Your task to perform on an android device: move a message to another label in the gmail app Image 0: 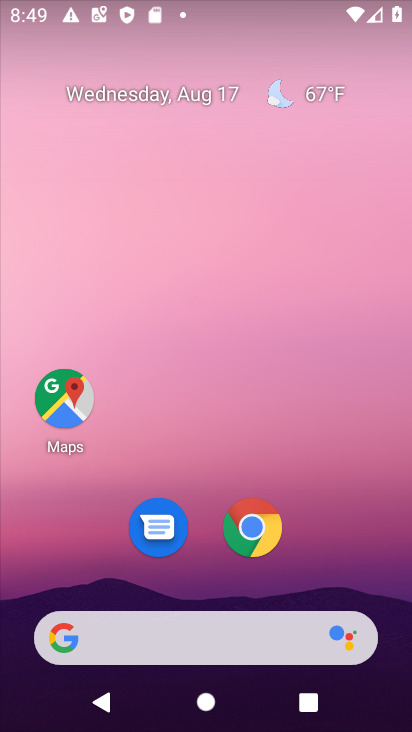
Step 0: drag from (196, 579) to (200, 146)
Your task to perform on an android device: move a message to another label in the gmail app Image 1: 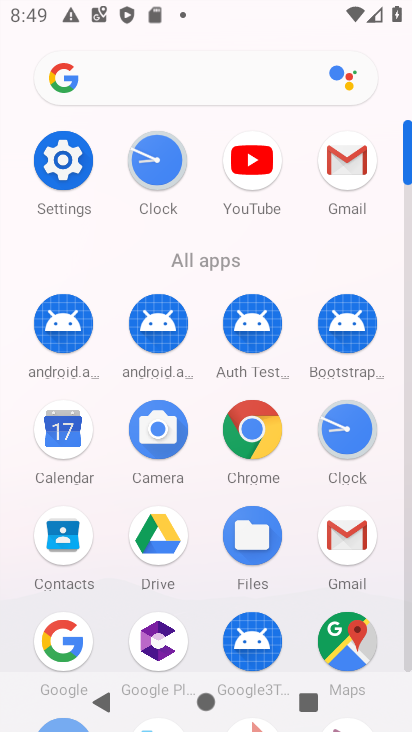
Step 1: click (365, 168)
Your task to perform on an android device: move a message to another label in the gmail app Image 2: 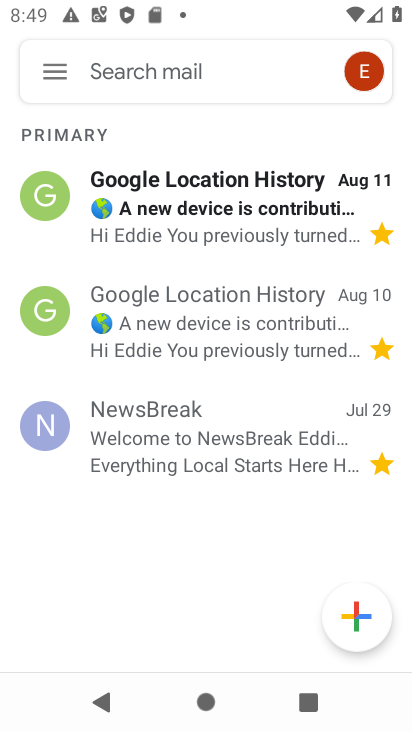
Step 2: click (31, 198)
Your task to perform on an android device: move a message to another label in the gmail app Image 3: 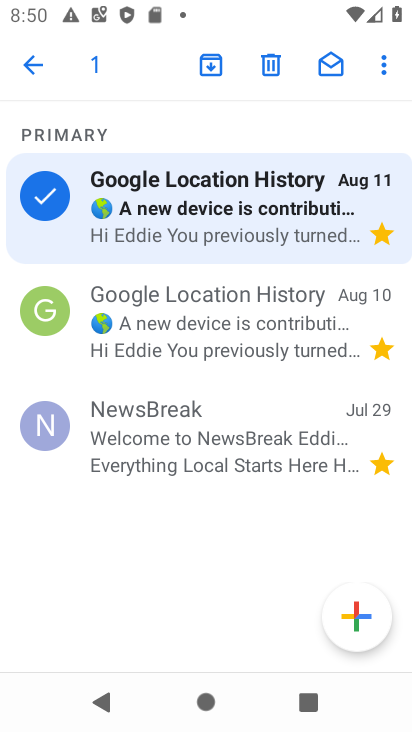
Step 3: click (389, 58)
Your task to perform on an android device: move a message to another label in the gmail app Image 4: 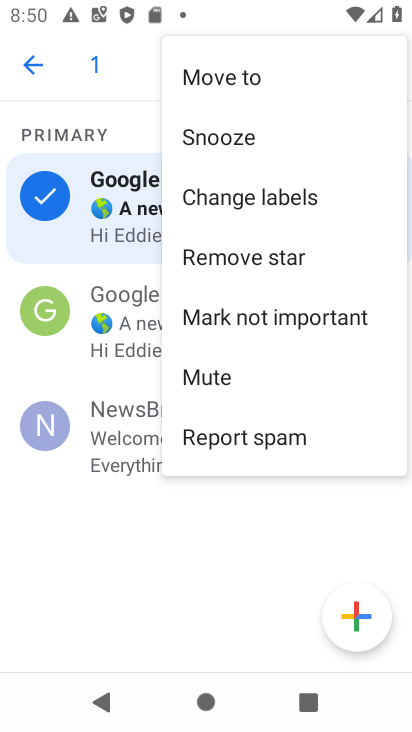
Step 4: click (329, 201)
Your task to perform on an android device: move a message to another label in the gmail app Image 5: 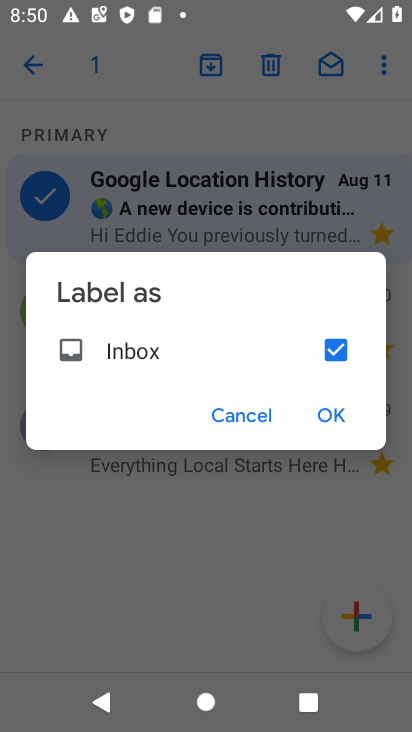
Step 5: click (341, 412)
Your task to perform on an android device: move a message to another label in the gmail app Image 6: 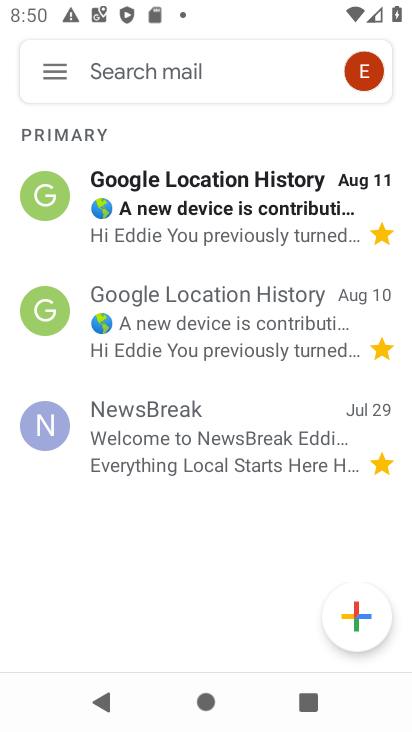
Step 6: task complete